Your task to perform on an android device: Open my contact list Image 0: 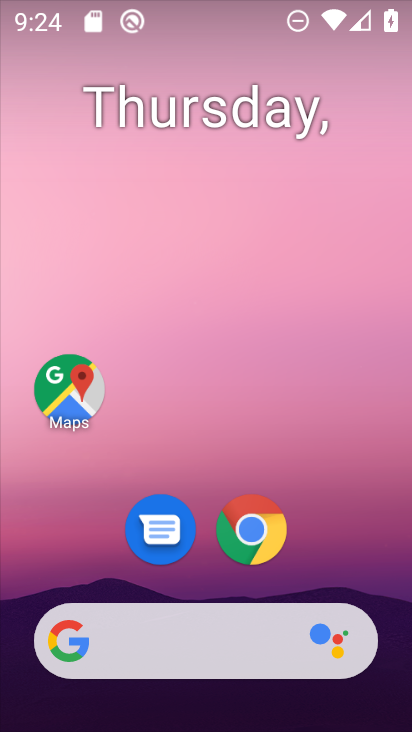
Step 0: drag from (221, 726) to (191, 19)
Your task to perform on an android device: Open my contact list Image 1: 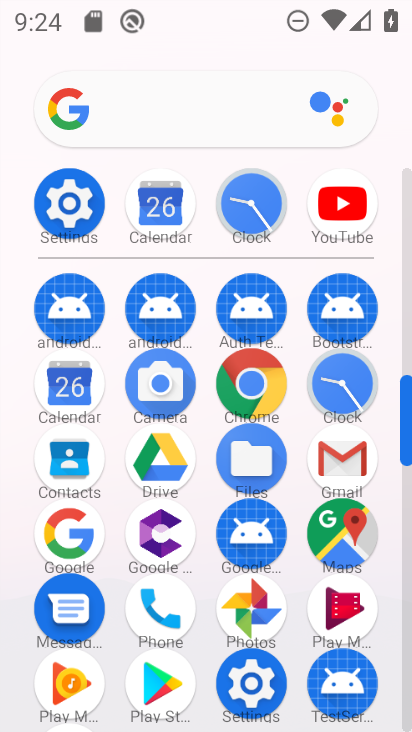
Step 1: click (74, 454)
Your task to perform on an android device: Open my contact list Image 2: 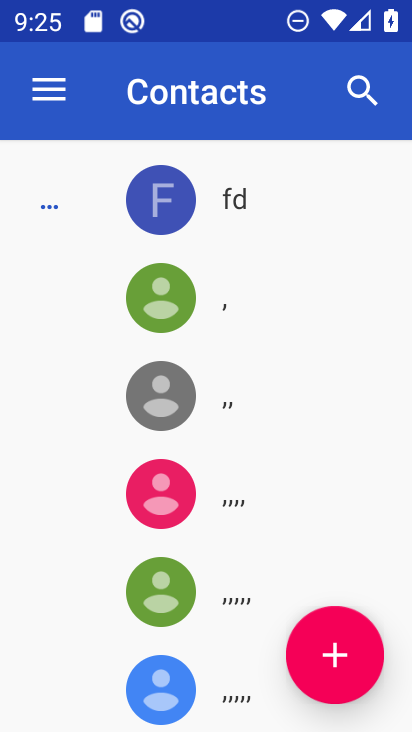
Step 2: task complete